Your task to perform on an android device: Open ESPN.com Image 0: 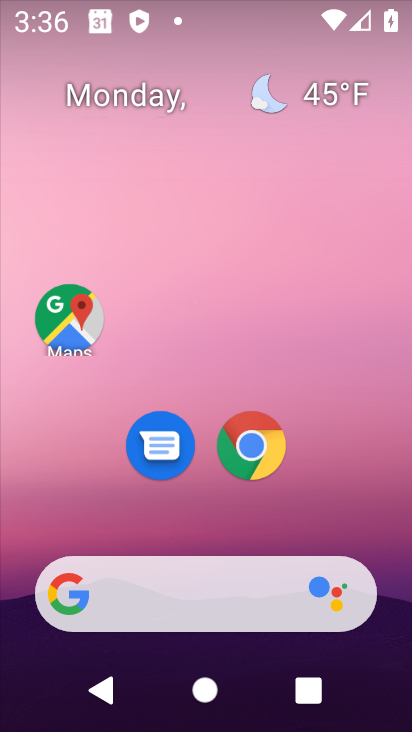
Step 0: click (252, 454)
Your task to perform on an android device: Open ESPN.com Image 1: 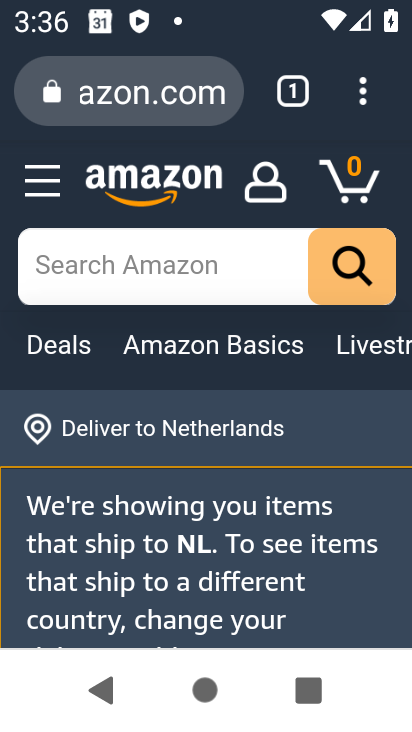
Step 1: click (142, 96)
Your task to perform on an android device: Open ESPN.com Image 2: 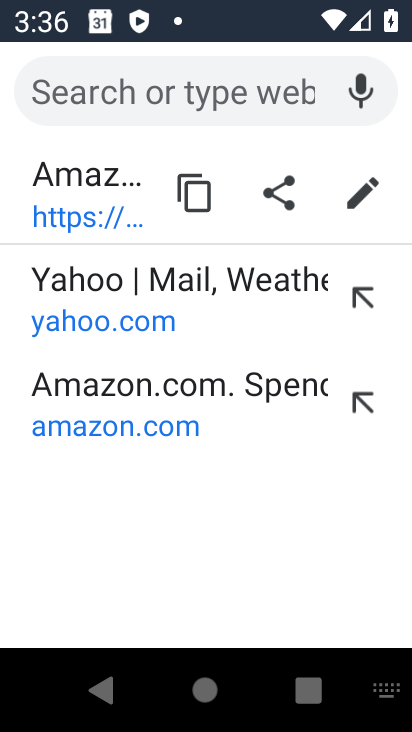
Step 2: type "ESPN.com"
Your task to perform on an android device: Open ESPN.com Image 3: 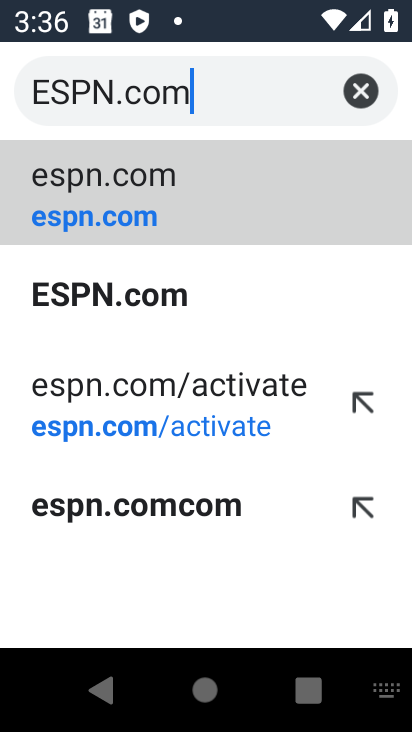
Step 3: click (73, 200)
Your task to perform on an android device: Open ESPN.com Image 4: 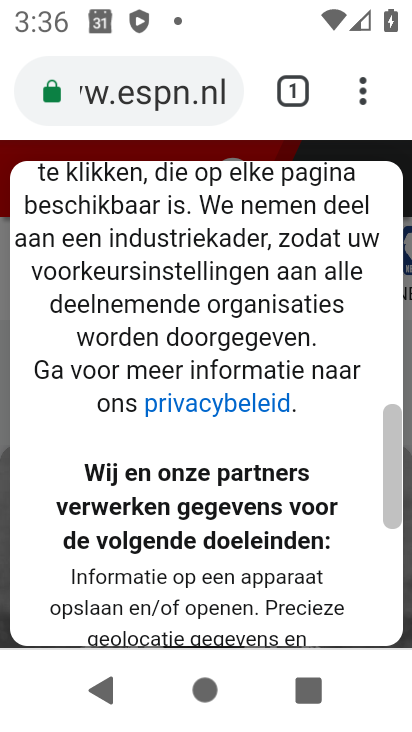
Step 4: task complete